Your task to perform on an android device: change the clock display to show seconds Image 0: 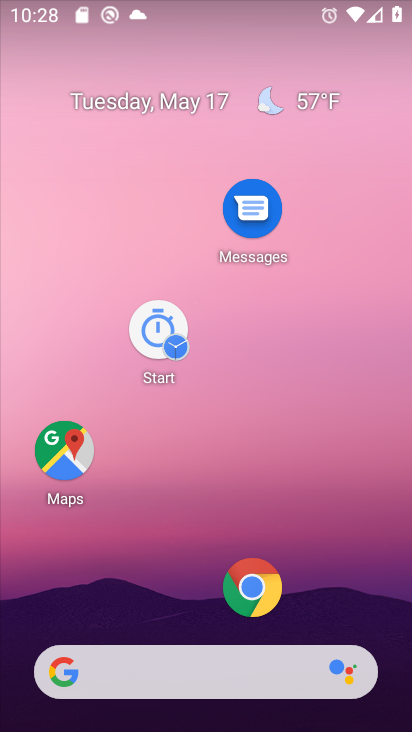
Step 0: drag from (365, 703) to (190, 161)
Your task to perform on an android device: change the clock display to show seconds Image 1: 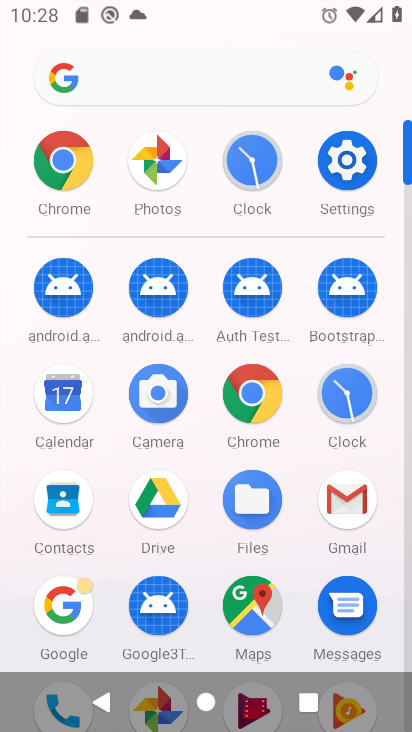
Step 1: click (341, 399)
Your task to perform on an android device: change the clock display to show seconds Image 2: 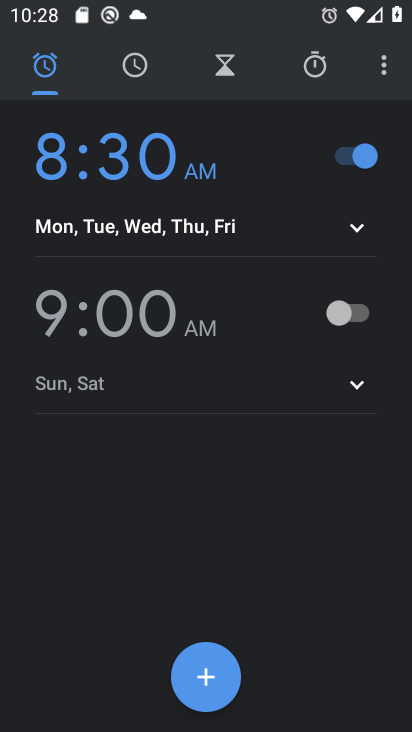
Step 2: click (341, 399)
Your task to perform on an android device: change the clock display to show seconds Image 3: 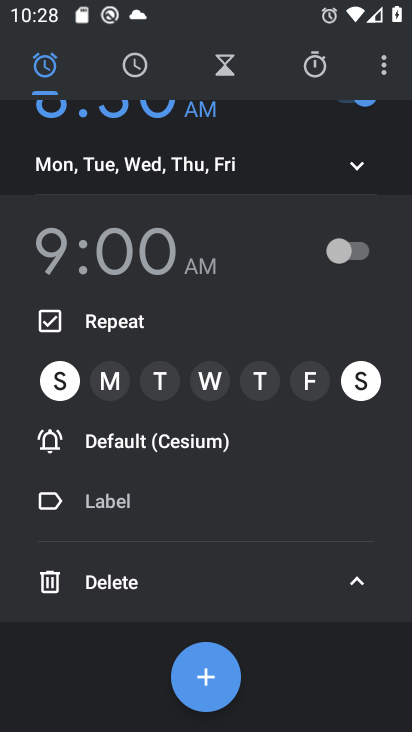
Step 3: click (371, 60)
Your task to perform on an android device: change the clock display to show seconds Image 4: 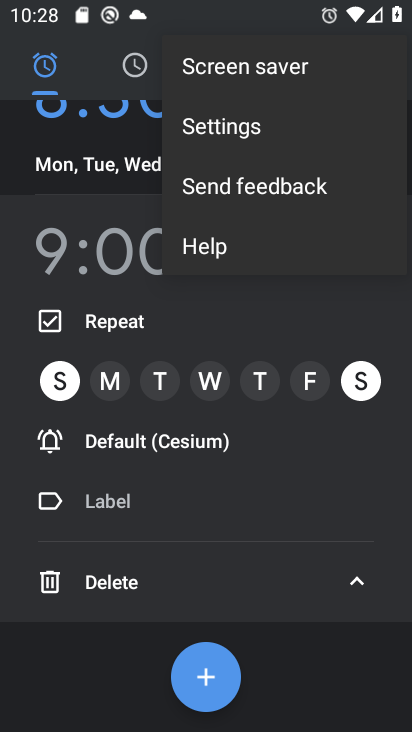
Step 4: click (188, 132)
Your task to perform on an android device: change the clock display to show seconds Image 5: 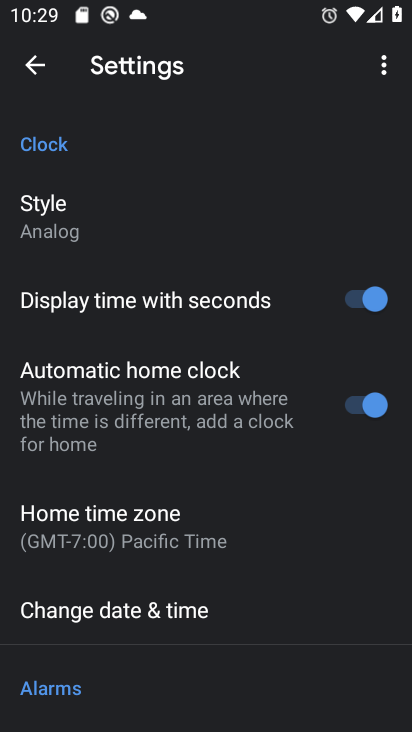
Step 5: task complete